Your task to perform on an android device: create a new album in the google photos Image 0: 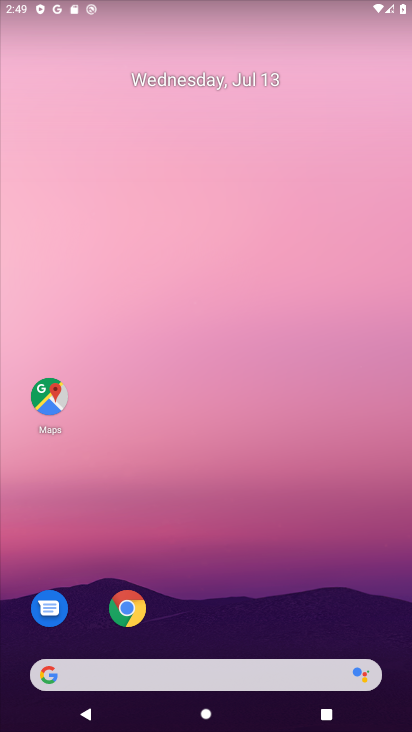
Step 0: drag from (178, 590) to (196, 120)
Your task to perform on an android device: create a new album in the google photos Image 1: 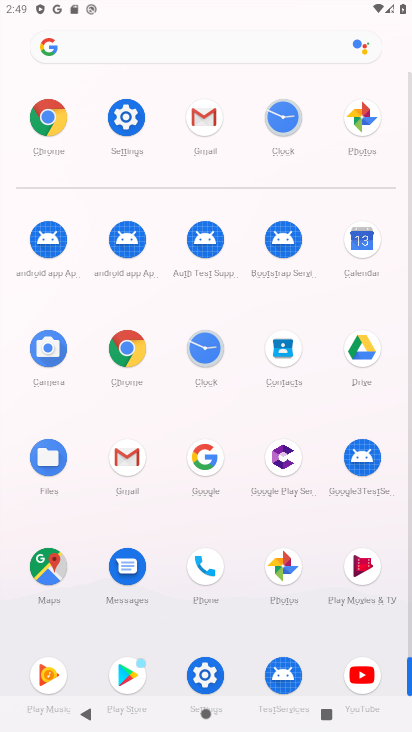
Step 1: click (351, 123)
Your task to perform on an android device: create a new album in the google photos Image 2: 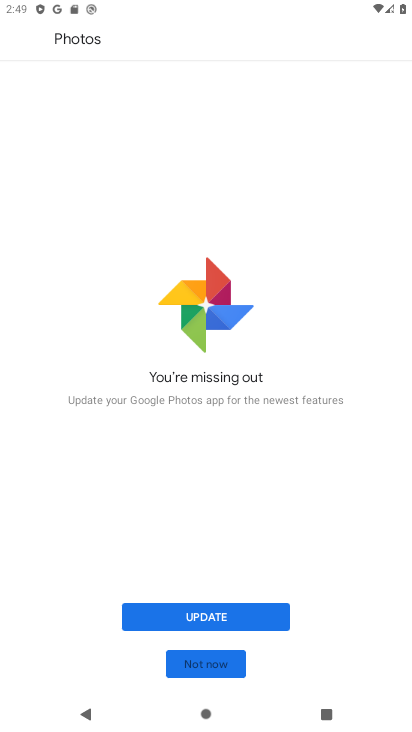
Step 2: click (194, 661)
Your task to perform on an android device: create a new album in the google photos Image 3: 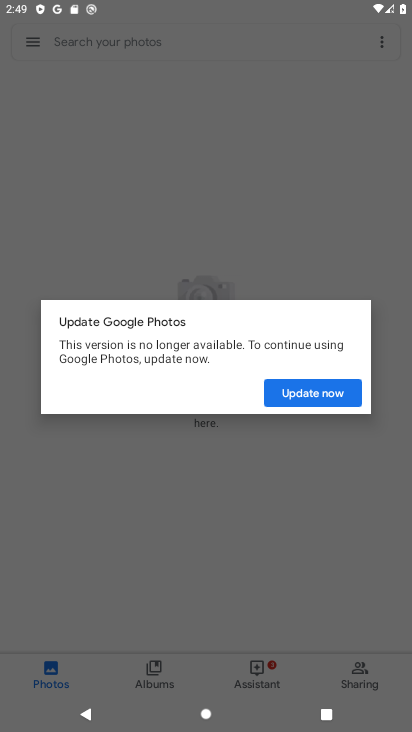
Step 3: click (319, 390)
Your task to perform on an android device: create a new album in the google photos Image 4: 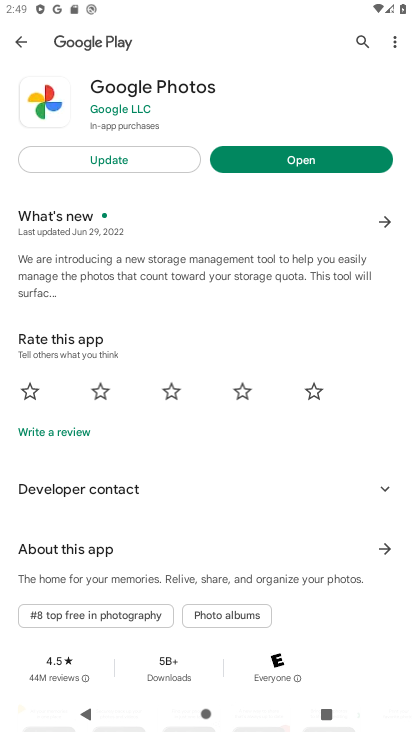
Step 4: click (275, 169)
Your task to perform on an android device: create a new album in the google photos Image 5: 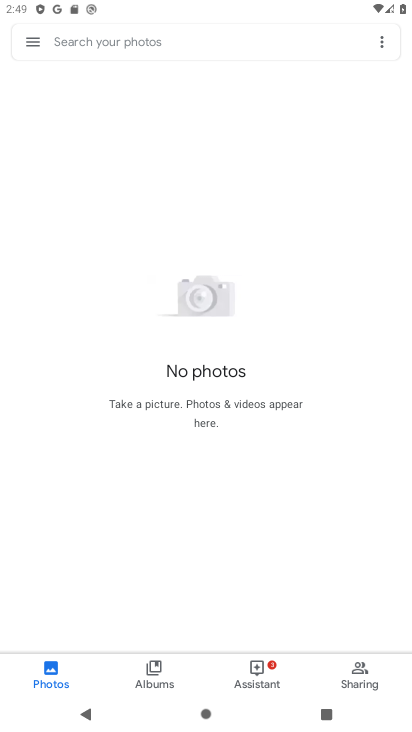
Step 5: task complete